Your task to perform on an android device: Go to Maps Image 0: 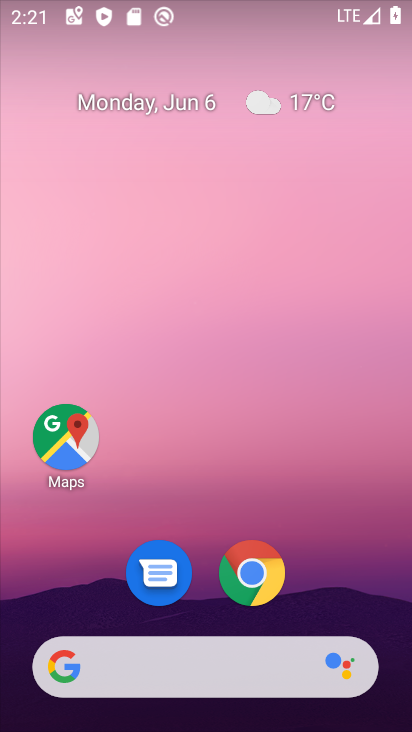
Step 0: drag from (333, 590) to (317, 210)
Your task to perform on an android device: Go to Maps Image 1: 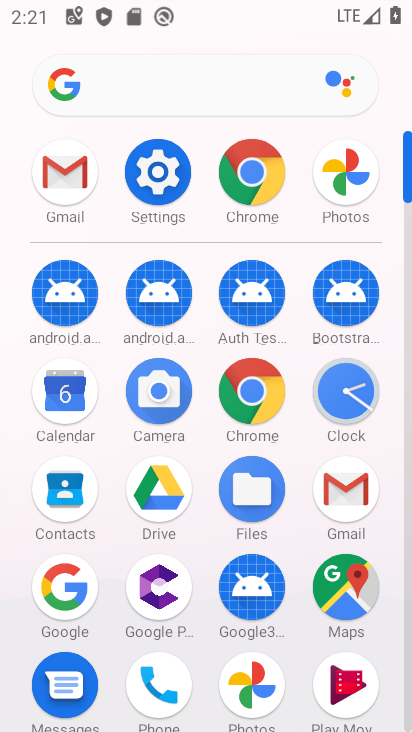
Step 1: click (361, 576)
Your task to perform on an android device: Go to Maps Image 2: 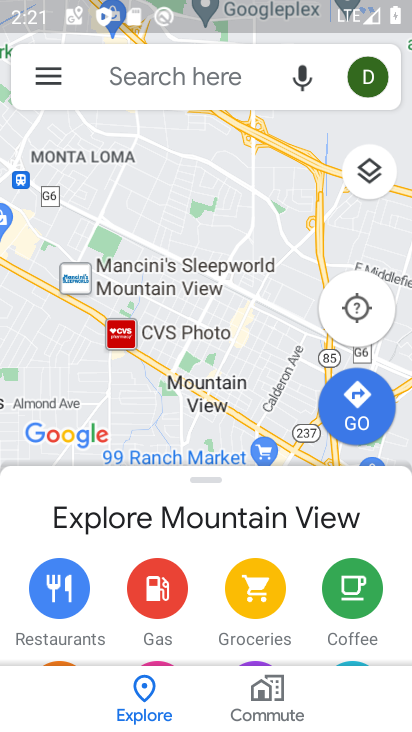
Step 2: task complete